Your task to perform on an android device: delete a single message in the gmail app Image 0: 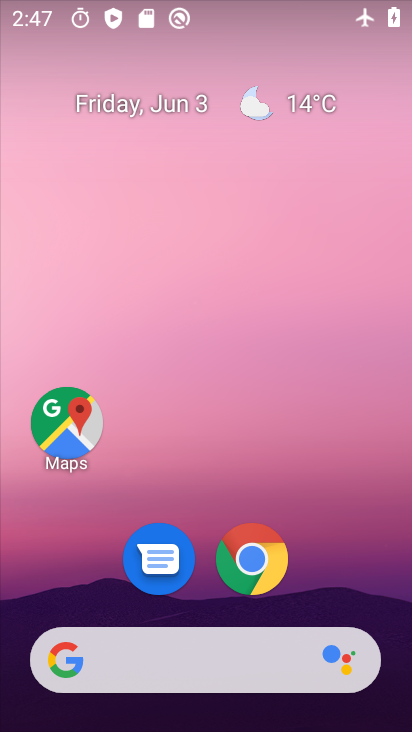
Step 0: drag from (220, 610) to (171, 4)
Your task to perform on an android device: delete a single message in the gmail app Image 1: 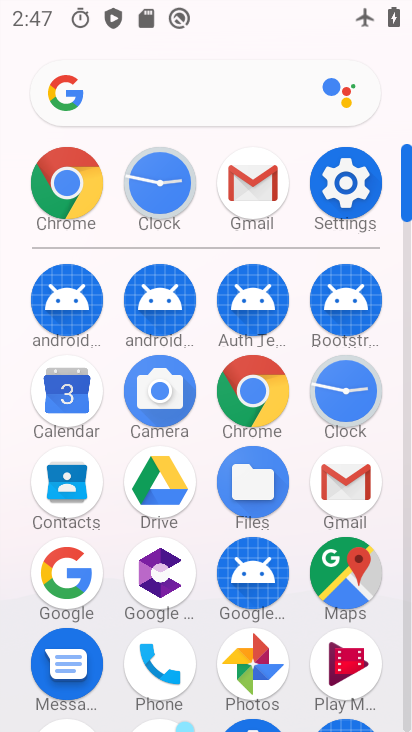
Step 1: click (368, 488)
Your task to perform on an android device: delete a single message in the gmail app Image 2: 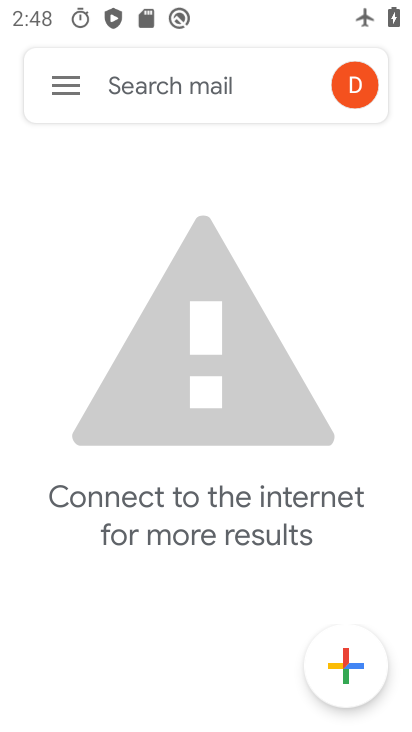
Step 2: click (59, 86)
Your task to perform on an android device: delete a single message in the gmail app Image 3: 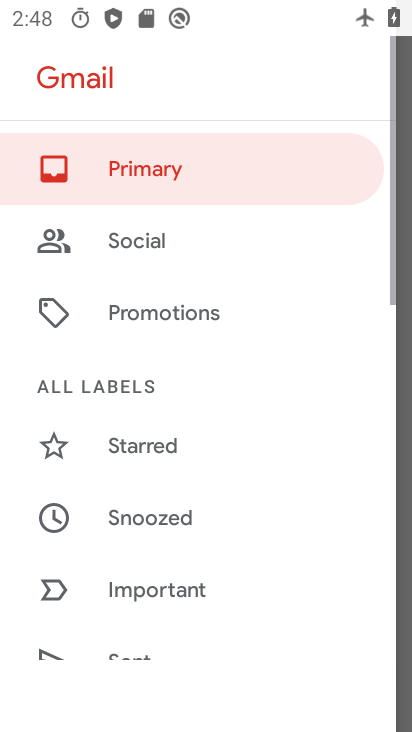
Step 3: task complete